Your task to perform on an android device: Play the last video I watched on Youtube Image 0: 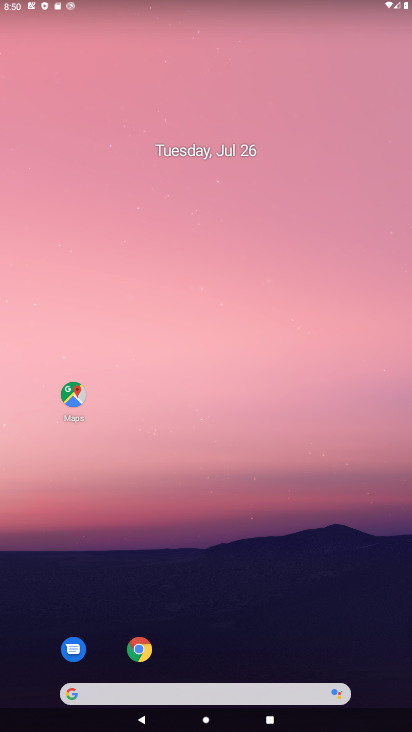
Step 0: drag from (187, 607) to (241, 185)
Your task to perform on an android device: Play the last video I watched on Youtube Image 1: 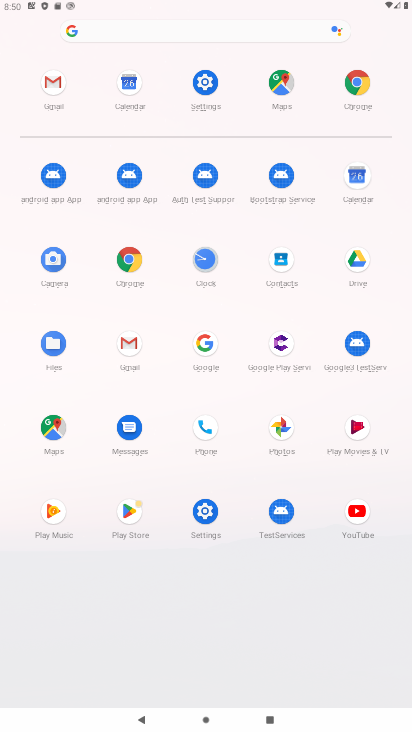
Step 1: drag from (120, 578) to (142, 276)
Your task to perform on an android device: Play the last video I watched on Youtube Image 2: 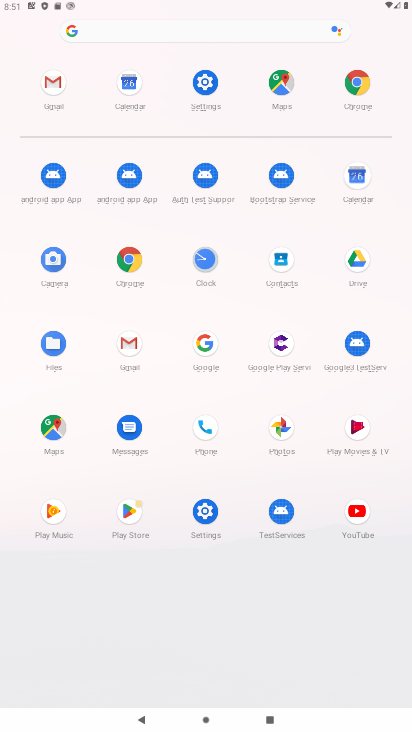
Step 2: click (351, 507)
Your task to perform on an android device: Play the last video I watched on Youtube Image 3: 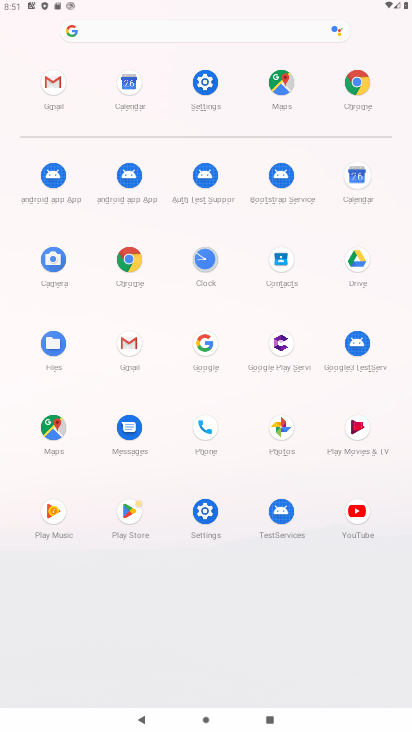
Step 3: click (351, 507)
Your task to perform on an android device: Play the last video I watched on Youtube Image 4: 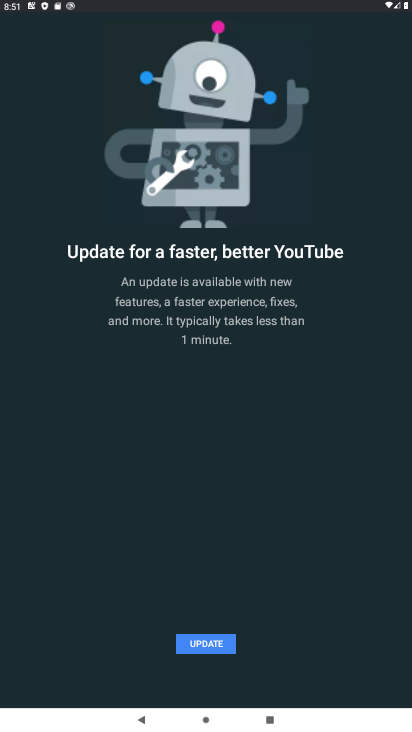
Step 4: click (92, 282)
Your task to perform on an android device: Play the last video I watched on Youtube Image 5: 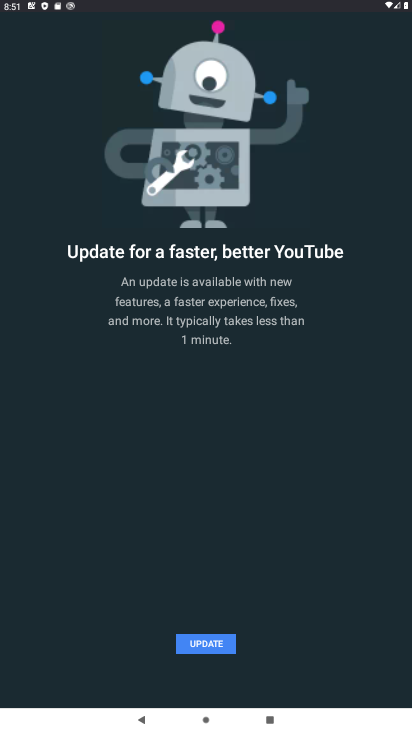
Step 5: task complete